Your task to perform on an android device: turn on sleep mode Image 0: 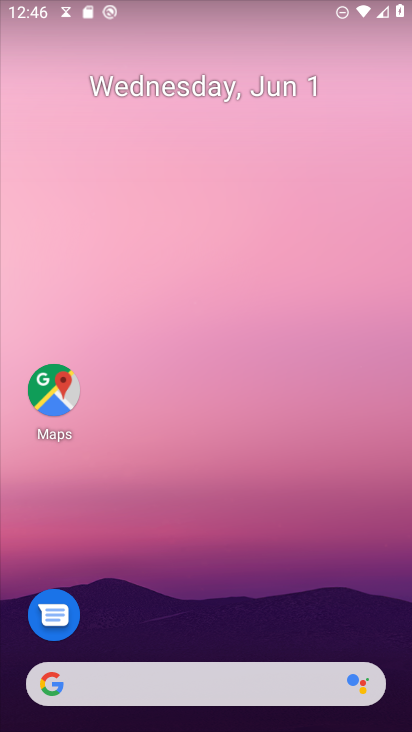
Step 0: drag from (262, 439) to (271, 203)
Your task to perform on an android device: turn on sleep mode Image 1: 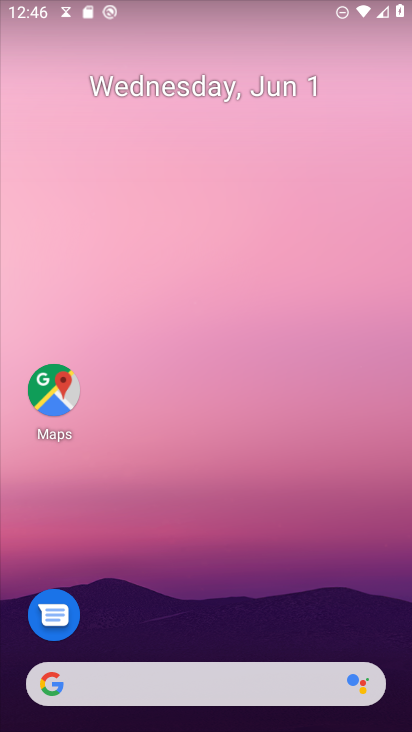
Step 1: click (300, 97)
Your task to perform on an android device: turn on sleep mode Image 2: 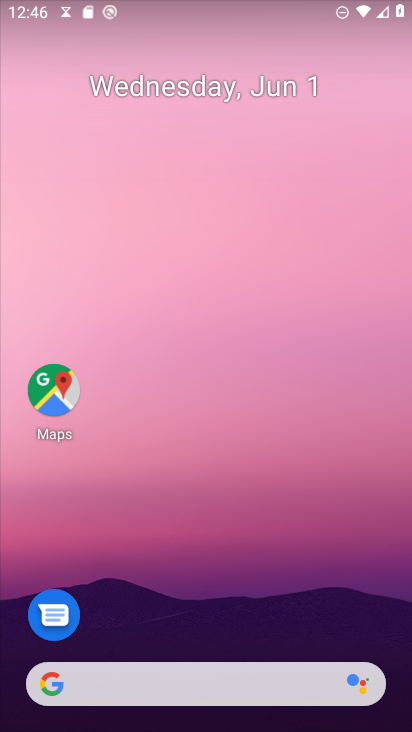
Step 2: drag from (200, 560) to (356, 21)
Your task to perform on an android device: turn on sleep mode Image 3: 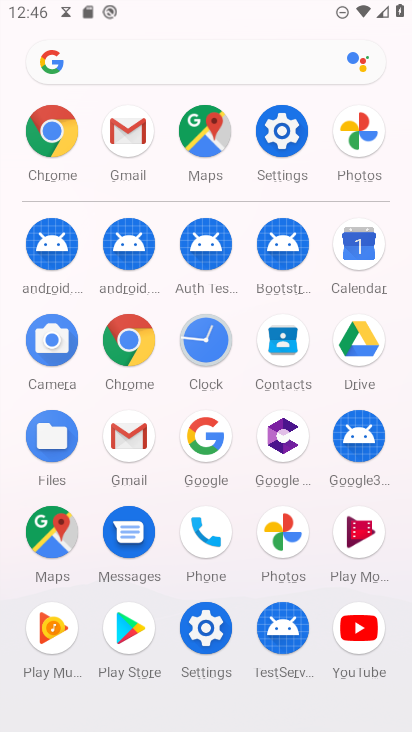
Step 3: click (284, 150)
Your task to perform on an android device: turn on sleep mode Image 4: 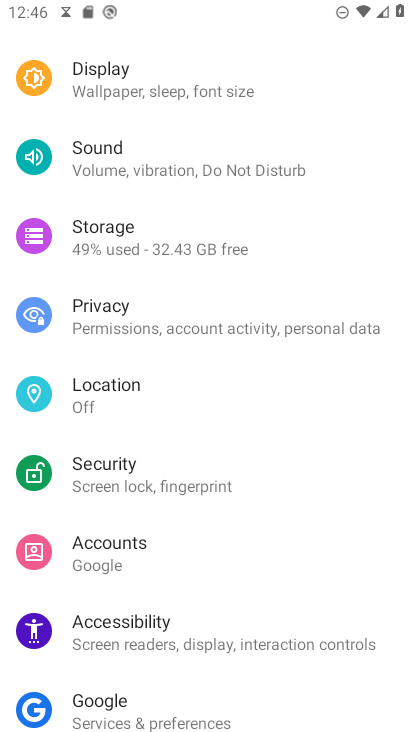
Step 4: click (249, 80)
Your task to perform on an android device: turn on sleep mode Image 5: 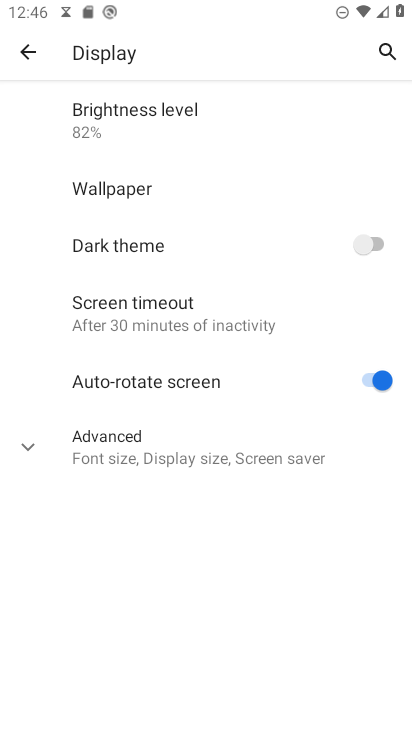
Step 5: click (159, 449)
Your task to perform on an android device: turn on sleep mode Image 6: 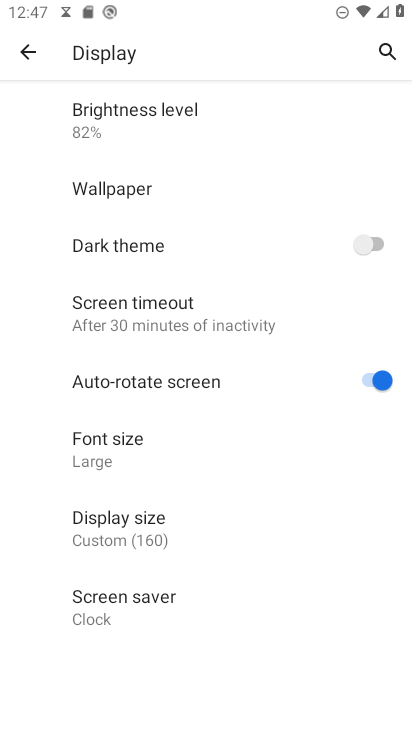
Step 6: drag from (220, 408) to (226, 229)
Your task to perform on an android device: turn on sleep mode Image 7: 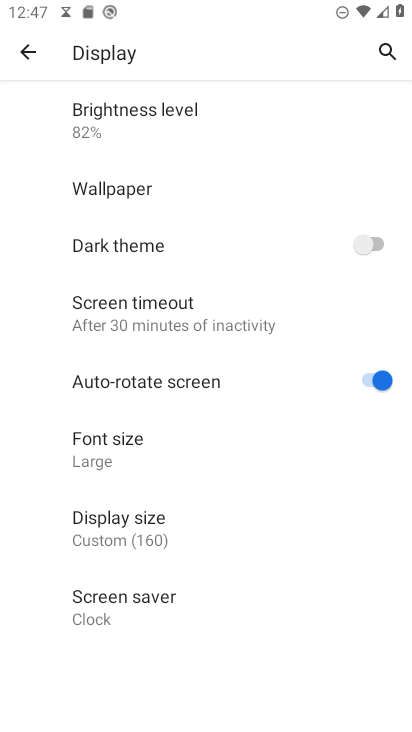
Step 7: drag from (263, 209) to (245, 305)
Your task to perform on an android device: turn on sleep mode Image 8: 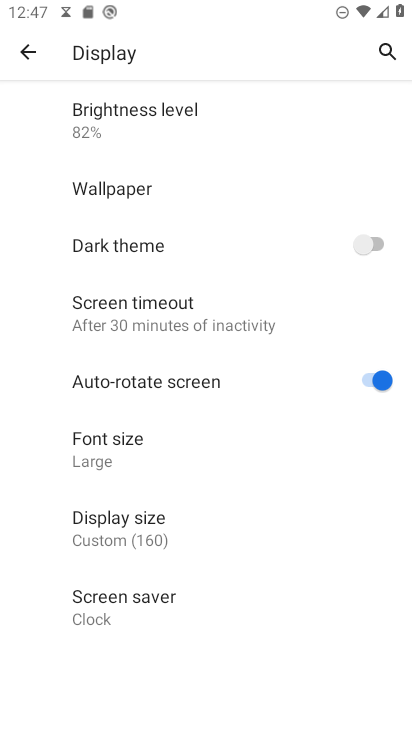
Step 8: press back button
Your task to perform on an android device: turn on sleep mode Image 9: 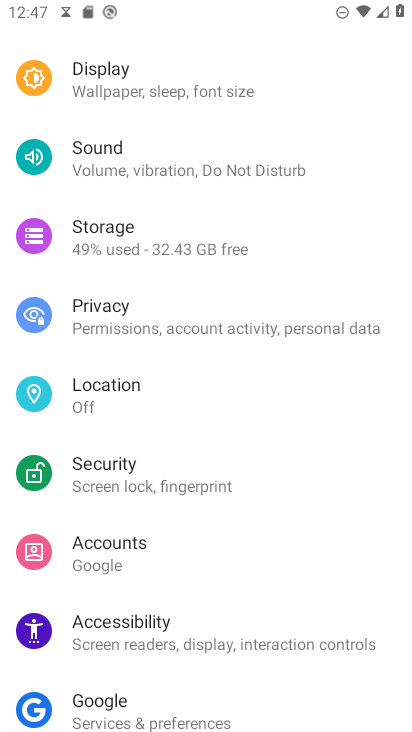
Step 9: drag from (335, 540) to (345, 243)
Your task to perform on an android device: turn on sleep mode Image 10: 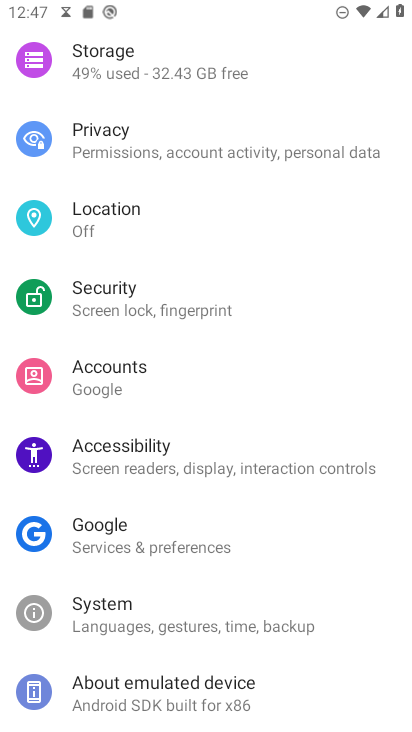
Step 10: drag from (324, 253) to (299, 523)
Your task to perform on an android device: turn on sleep mode Image 11: 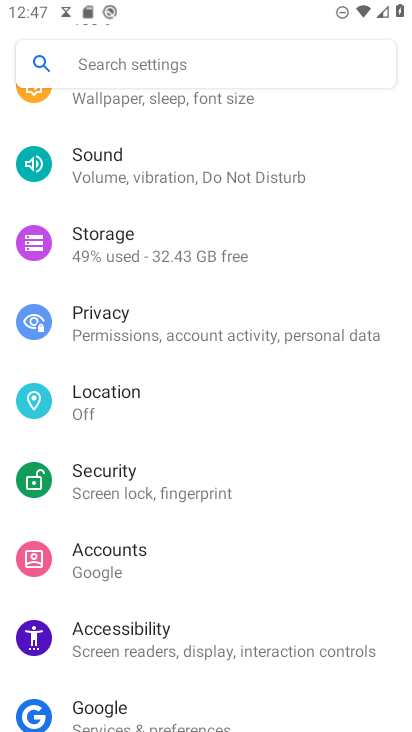
Step 11: drag from (322, 363) to (343, 273)
Your task to perform on an android device: turn on sleep mode Image 12: 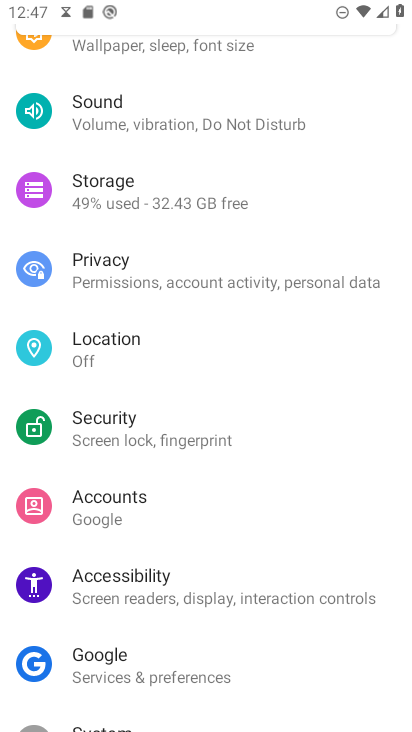
Step 12: drag from (362, 247) to (344, 502)
Your task to perform on an android device: turn on sleep mode Image 13: 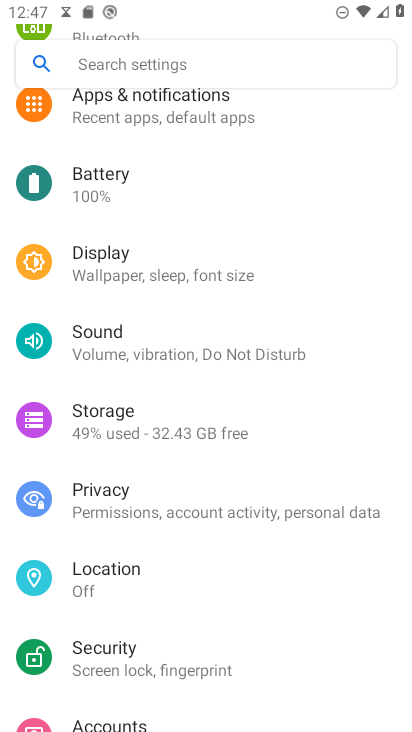
Step 13: drag from (302, 167) to (304, 424)
Your task to perform on an android device: turn on sleep mode Image 14: 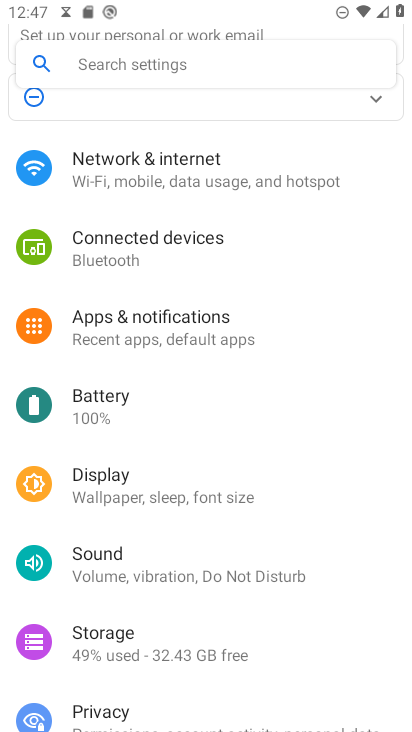
Step 14: click (92, 475)
Your task to perform on an android device: turn on sleep mode Image 15: 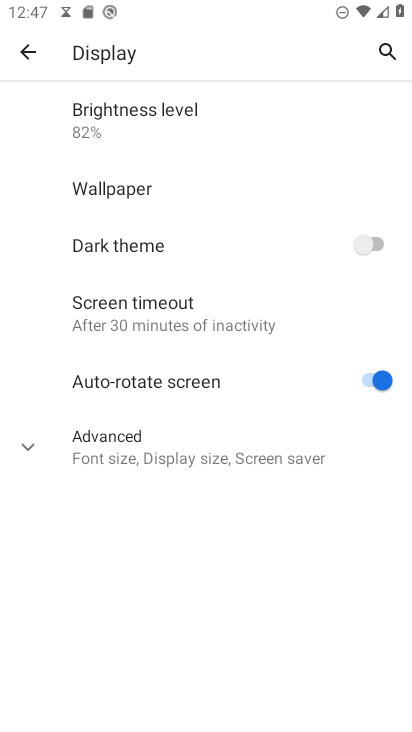
Step 15: click (232, 315)
Your task to perform on an android device: turn on sleep mode Image 16: 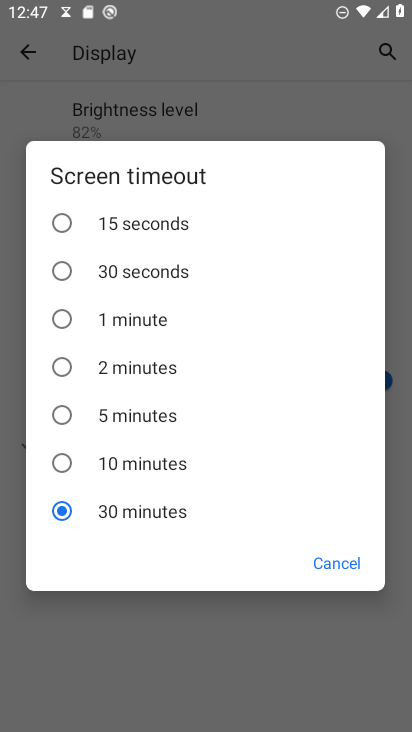
Step 16: click (319, 571)
Your task to perform on an android device: turn on sleep mode Image 17: 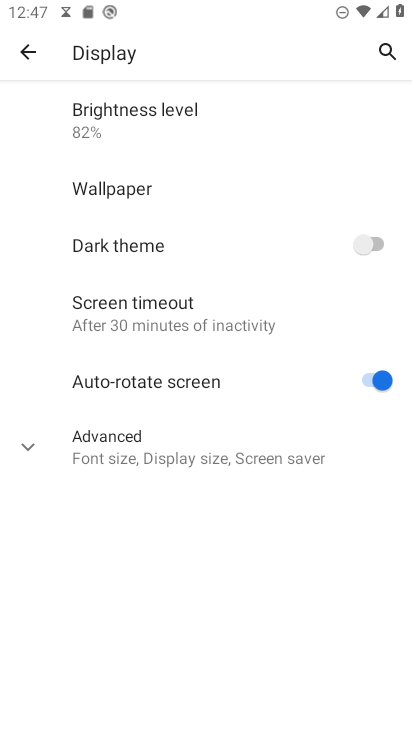
Step 17: click (332, 592)
Your task to perform on an android device: turn on sleep mode Image 18: 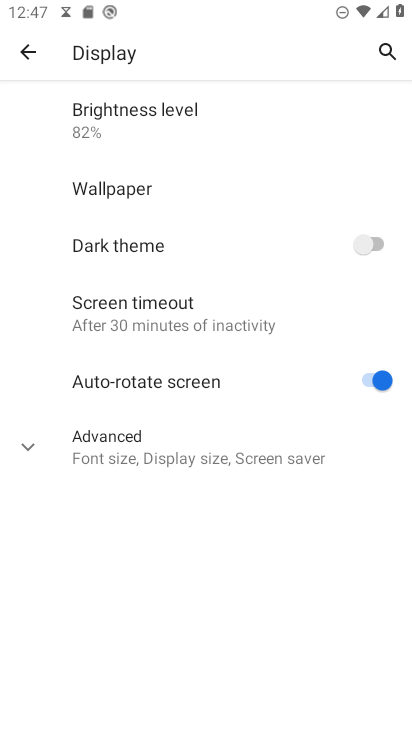
Step 18: drag from (340, 529) to (332, 286)
Your task to perform on an android device: turn on sleep mode Image 19: 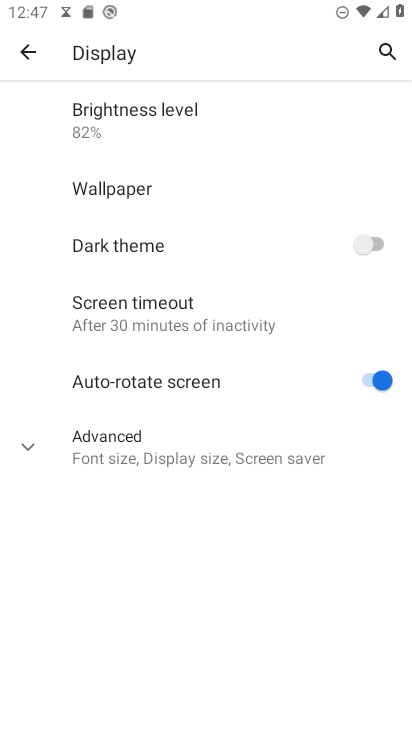
Step 19: click (33, 446)
Your task to perform on an android device: turn on sleep mode Image 20: 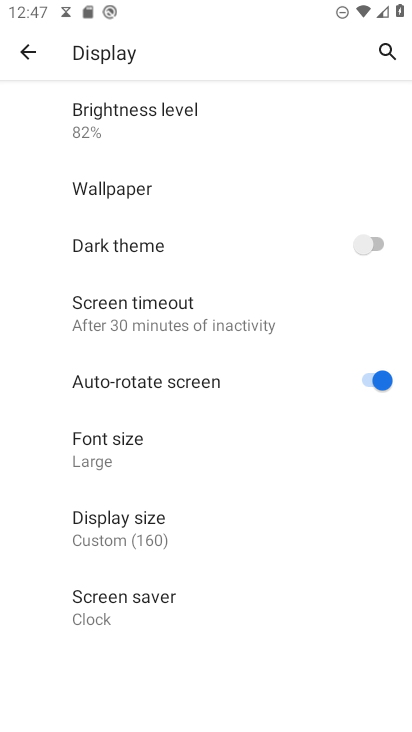
Step 20: task complete